Your task to perform on an android device: toggle notifications settings in the gmail app Image 0: 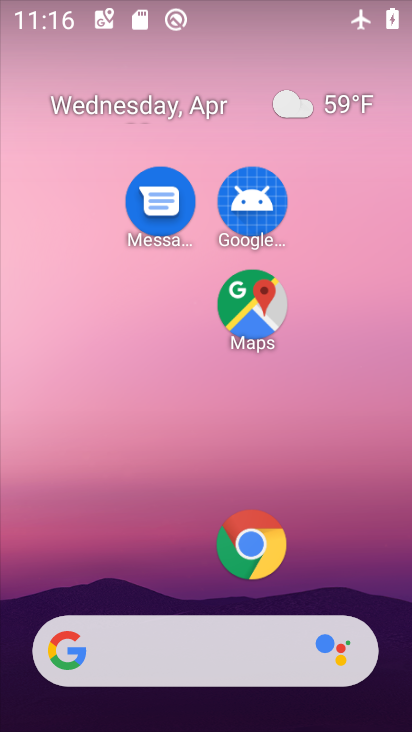
Step 0: drag from (194, 408) to (194, 96)
Your task to perform on an android device: toggle notifications settings in the gmail app Image 1: 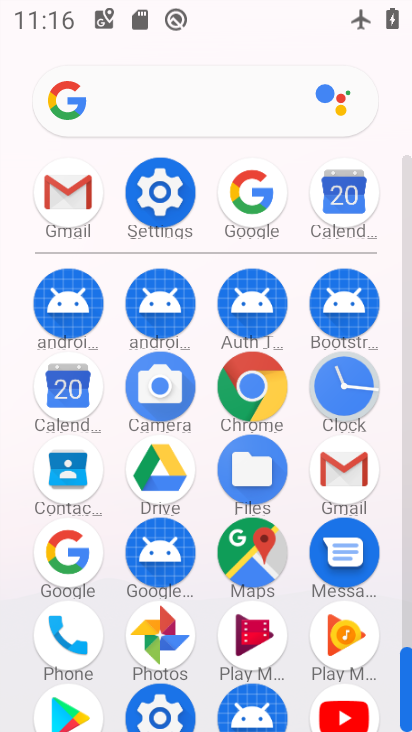
Step 1: click (62, 162)
Your task to perform on an android device: toggle notifications settings in the gmail app Image 2: 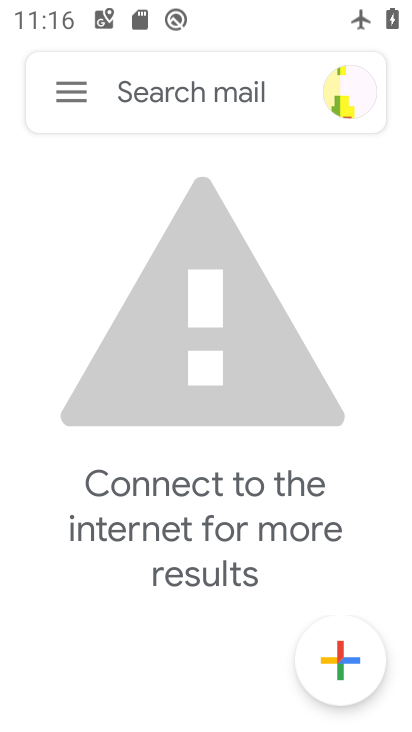
Step 2: click (76, 104)
Your task to perform on an android device: toggle notifications settings in the gmail app Image 3: 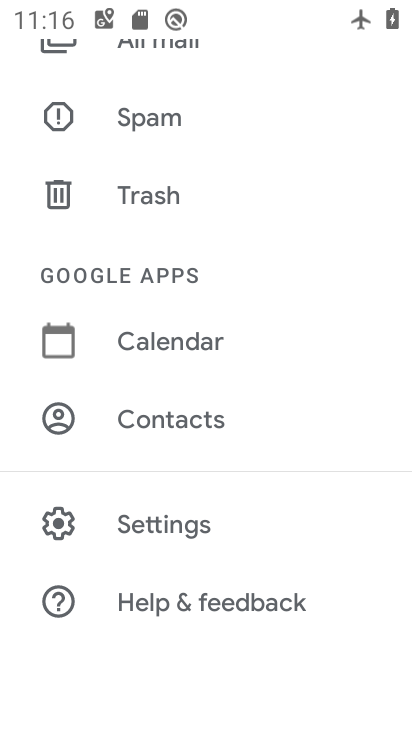
Step 3: click (122, 522)
Your task to perform on an android device: toggle notifications settings in the gmail app Image 4: 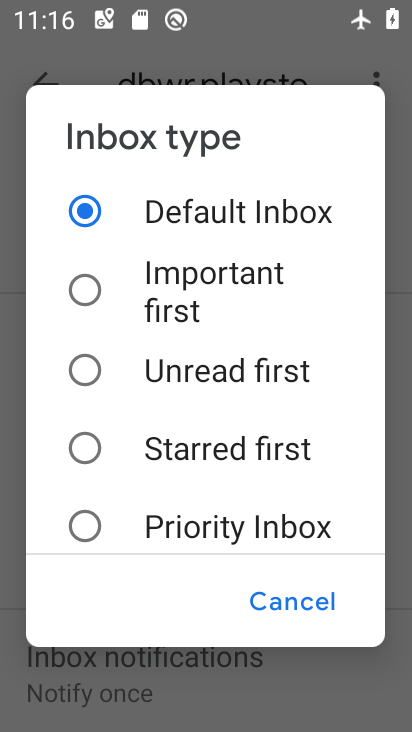
Step 4: click (266, 585)
Your task to perform on an android device: toggle notifications settings in the gmail app Image 5: 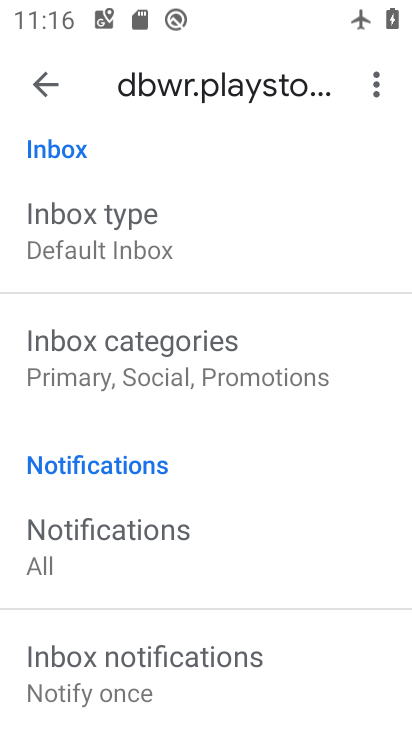
Step 5: drag from (215, 594) to (217, 210)
Your task to perform on an android device: toggle notifications settings in the gmail app Image 6: 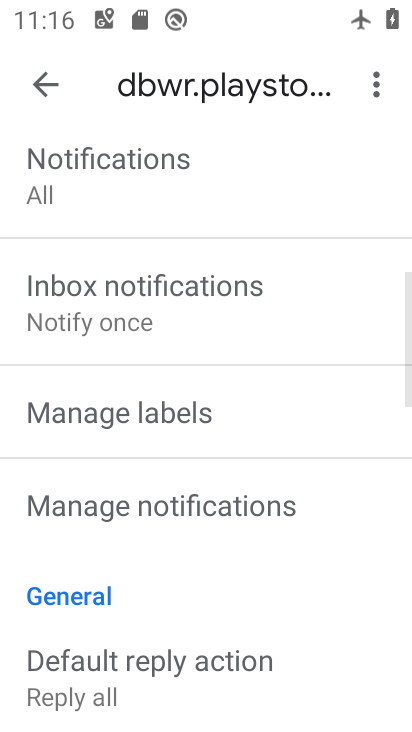
Step 6: click (185, 510)
Your task to perform on an android device: toggle notifications settings in the gmail app Image 7: 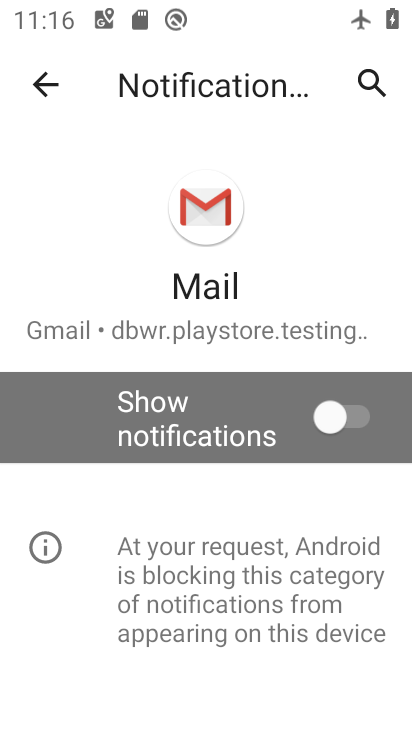
Step 7: click (355, 419)
Your task to perform on an android device: toggle notifications settings in the gmail app Image 8: 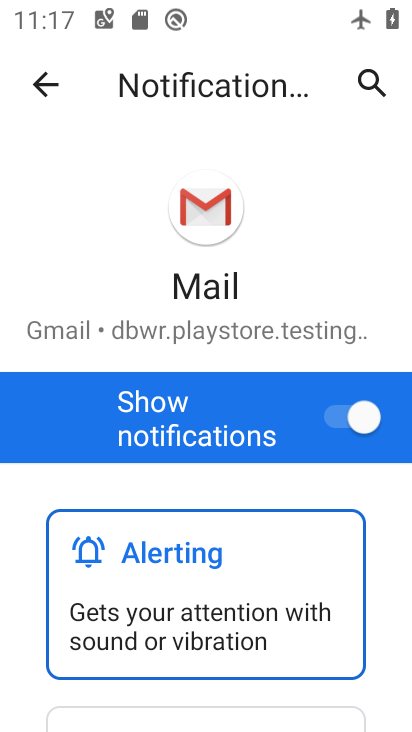
Step 8: task complete